Your task to perform on an android device: Is it going to rain this weekend? Image 0: 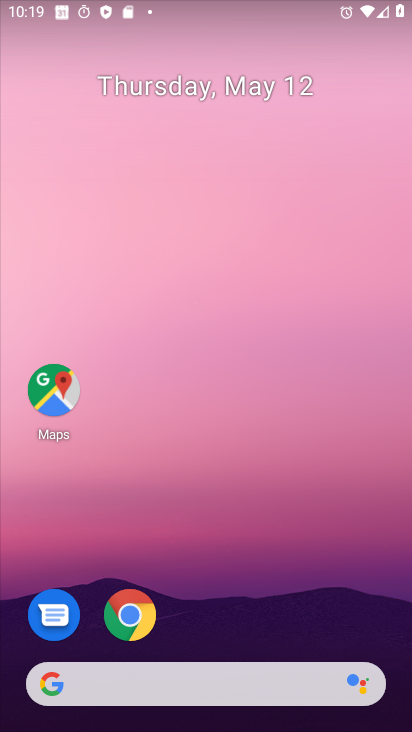
Step 0: drag from (260, 512) to (266, 33)
Your task to perform on an android device: Is it going to rain this weekend? Image 1: 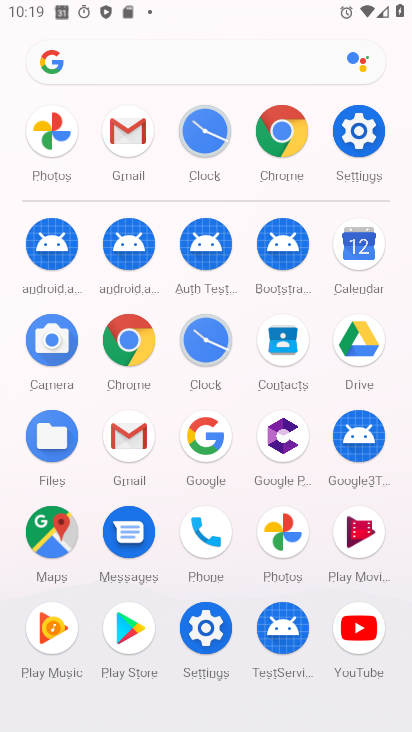
Step 1: press home button
Your task to perform on an android device: Is it going to rain this weekend? Image 2: 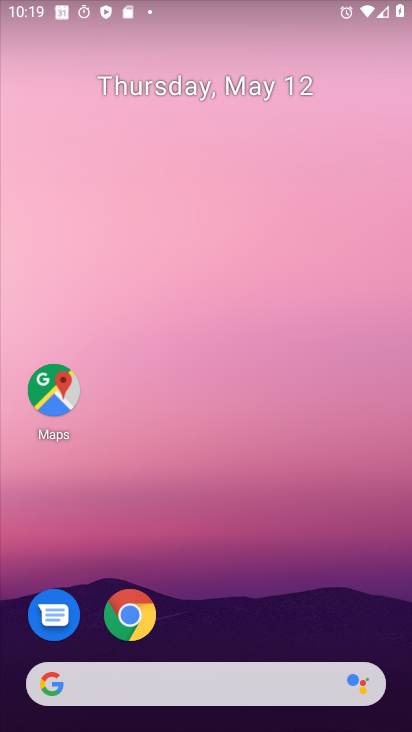
Step 2: click (134, 608)
Your task to perform on an android device: Is it going to rain this weekend? Image 3: 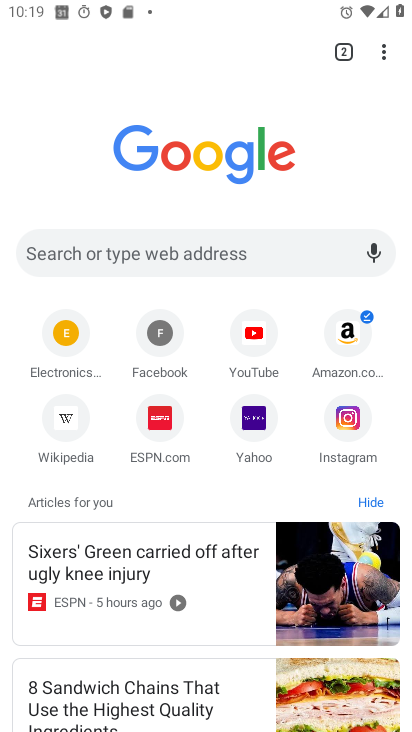
Step 3: click (227, 244)
Your task to perform on an android device: Is it going to rain this weekend? Image 4: 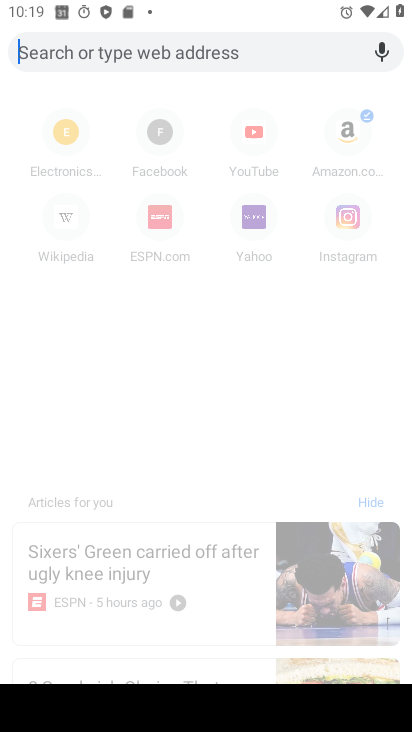
Step 4: type "weather"
Your task to perform on an android device: Is it going to rain this weekend? Image 5: 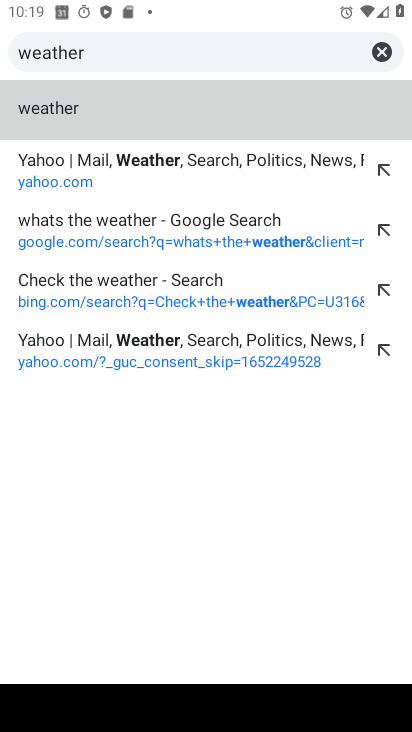
Step 5: click (60, 107)
Your task to perform on an android device: Is it going to rain this weekend? Image 6: 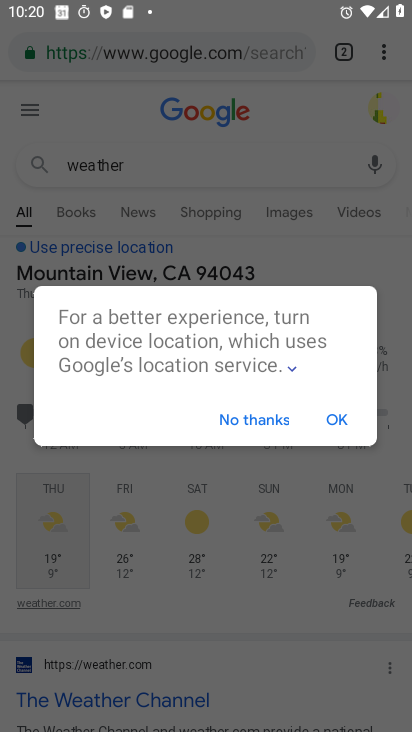
Step 6: click (336, 419)
Your task to perform on an android device: Is it going to rain this weekend? Image 7: 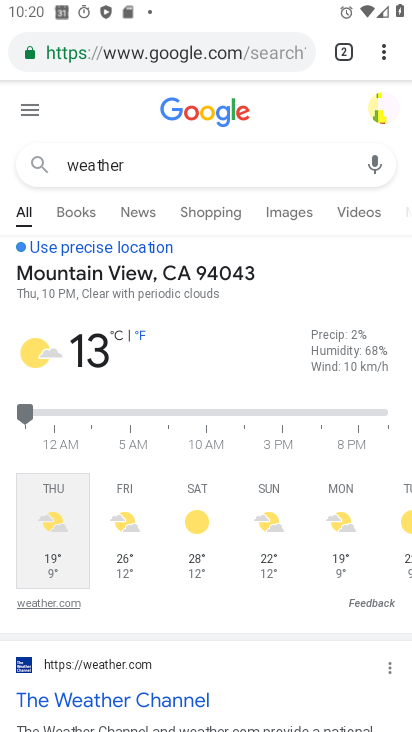
Step 7: task complete